Your task to perform on an android device: Open Google Maps and go to "Timeline" Image 0: 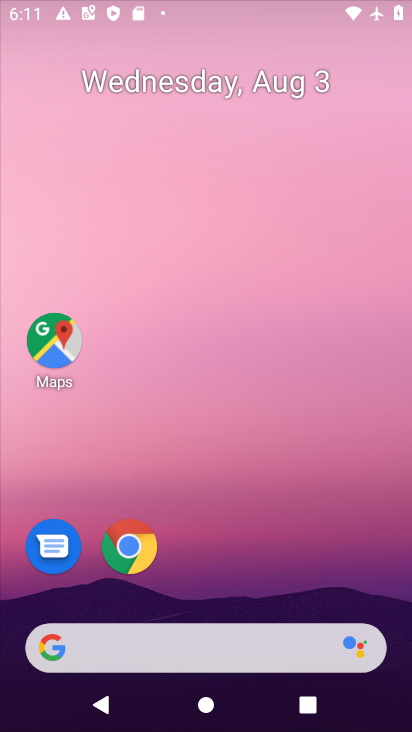
Step 0: press home button
Your task to perform on an android device: Open Google Maps and go to "Timeline" Image 1: 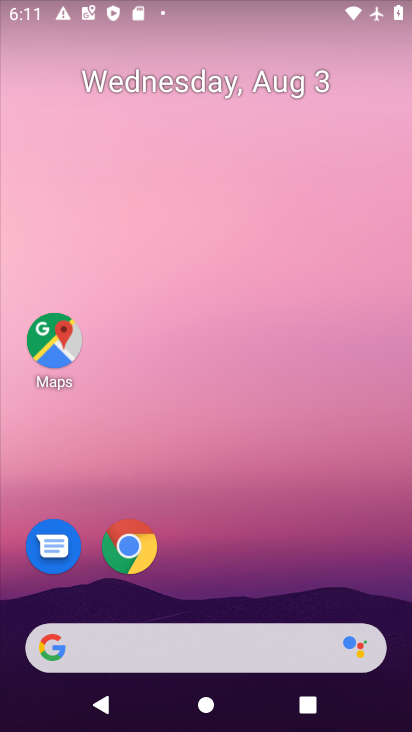
Step 1: click (44, 338)
Your task to perform on an android device: Open Google Maps and go to "Timeline" Image 2: 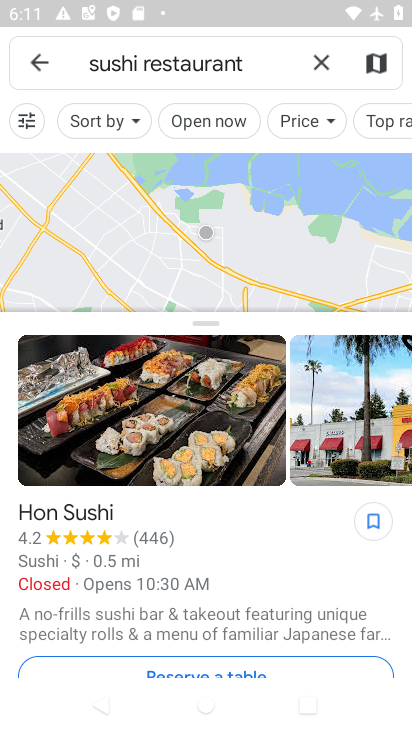
Step 2: click (317, 63)
Your task to perform on an android device: Open Google Maps and go to "Timeline" Image 3: 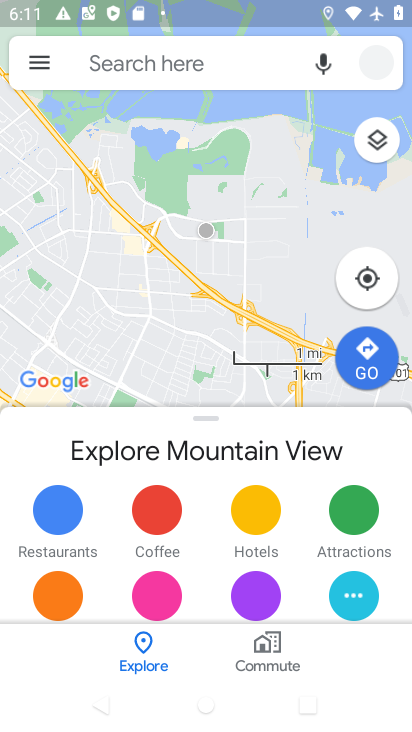
Step 3: click (25, 65)
Your task to perform on an android device: Open Google Maps and go to "Timeline" Image 4: 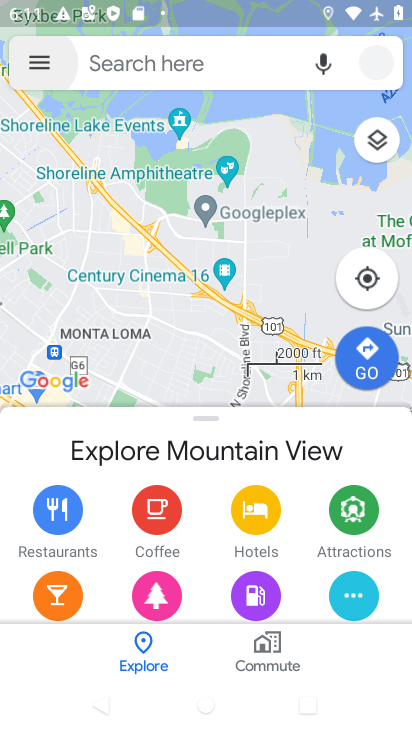
Step 4: click (40, 61)
Your task to perform on an android device: Open Google Maps and go to "Timeline" Image 5: 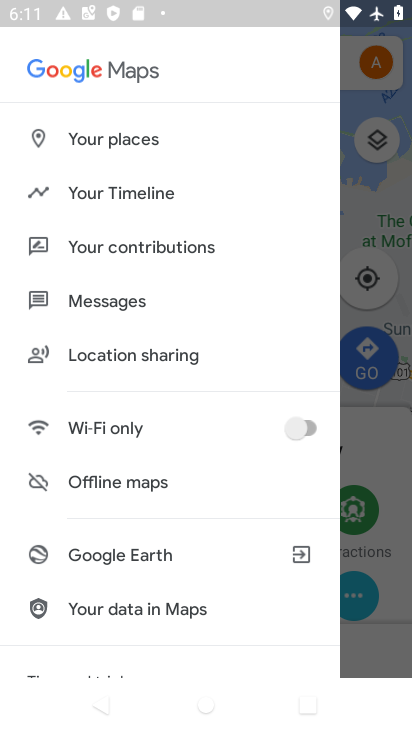
Step 5: click (119, 192)
Your task to perform on an android device: Open Google Maps and go to "Timeline" Image 6: 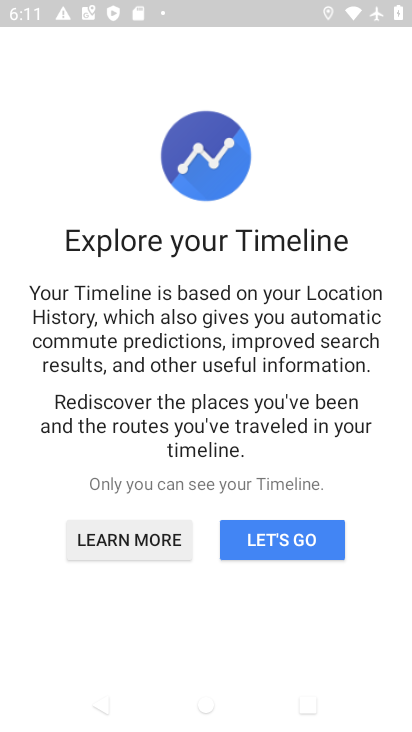
Step 6: click (280, 542)
Your task to perform on an android device: Open Google Maps and go to "Timeline" Image 7: 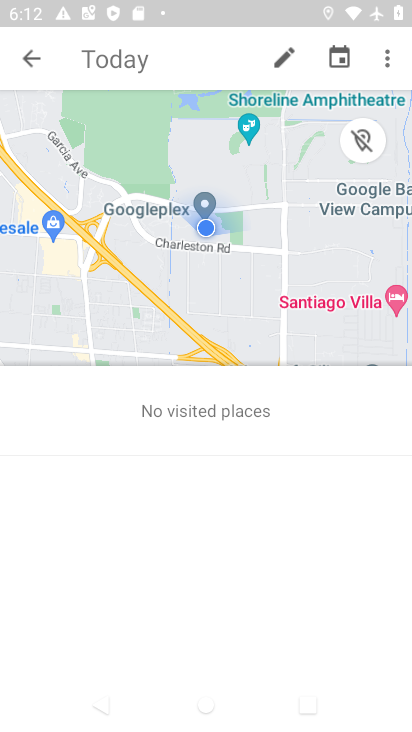
Step 7: task complete